Your task to perform on an android device: open app "DuckDuckGo Privacy Browser" (install if not already installed) Image 0: 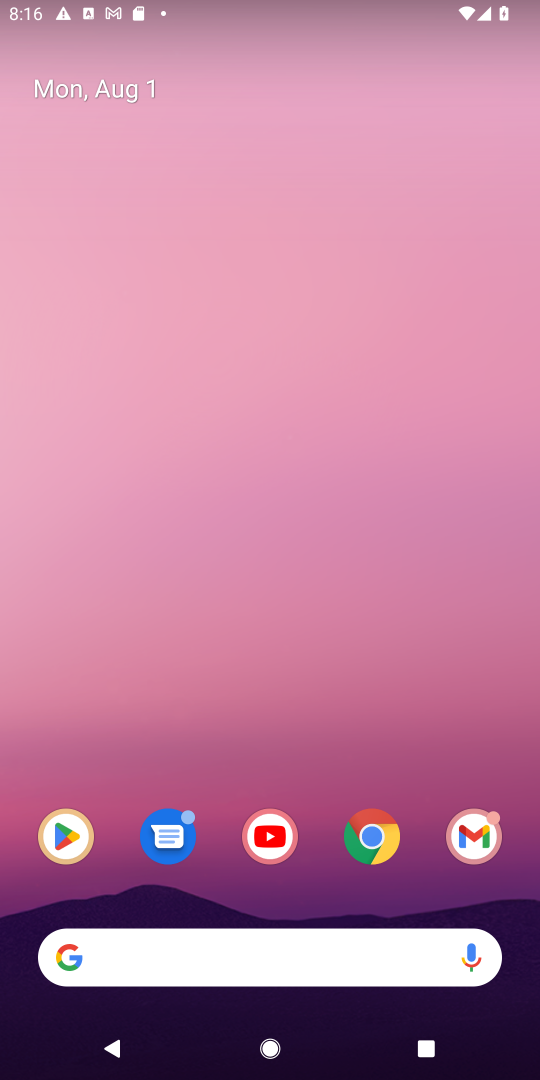
Step 0: click (65, 834)
Your task to perform on an android device: open app "DuckDuckGo Privacy Browser" (install if not already installed) Image 1: 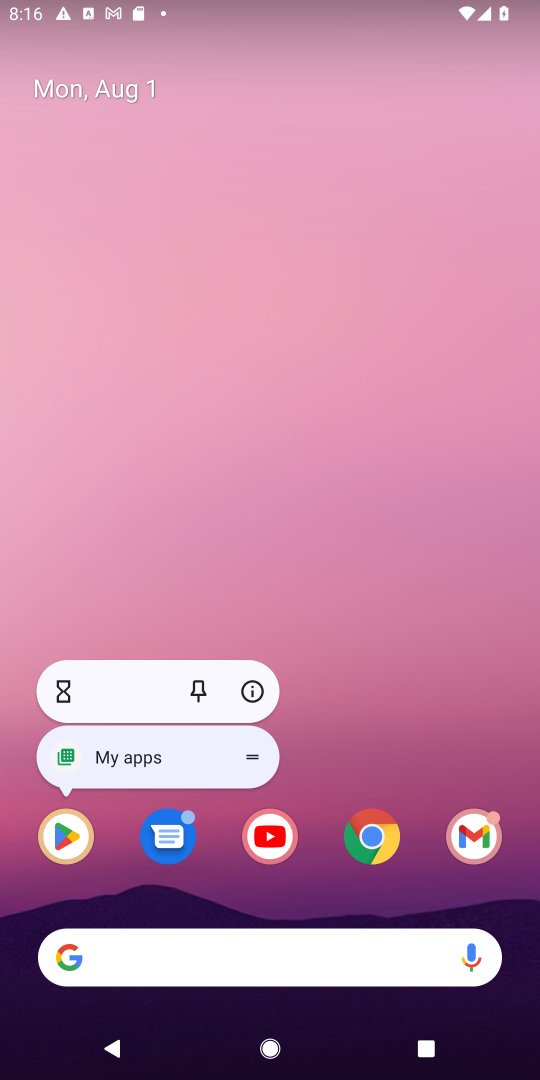
Step 1: click (65, 836)
Your task to perform on an android device: open app "DuckDuckGo Privacy Browser" (install if not already installed) Image 2: 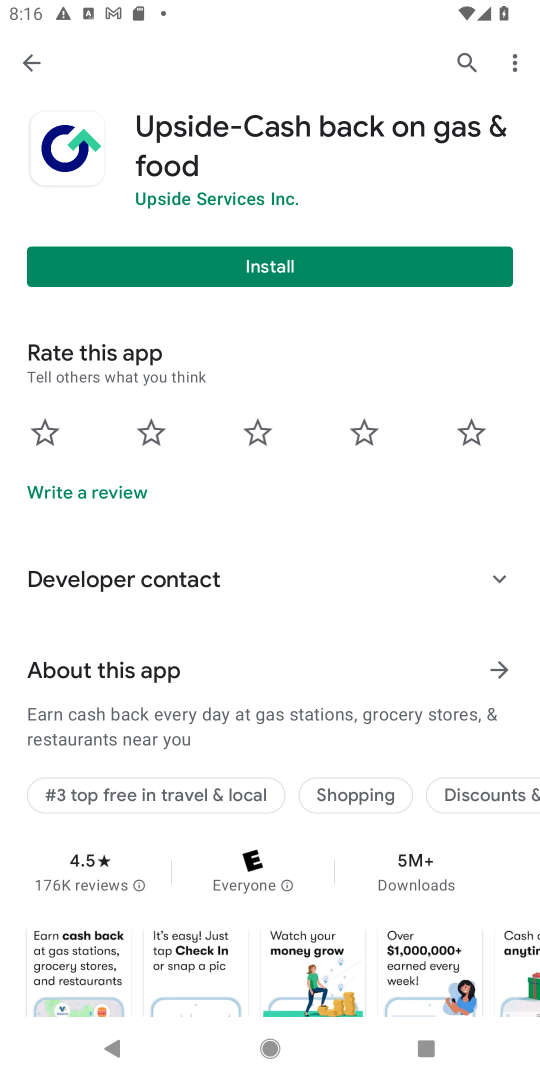
Step 2: click (461, 57)
Your task to perform on an android device: open app "DuckDuckGo Privacy Browser" (install if not already installed) Image 3: 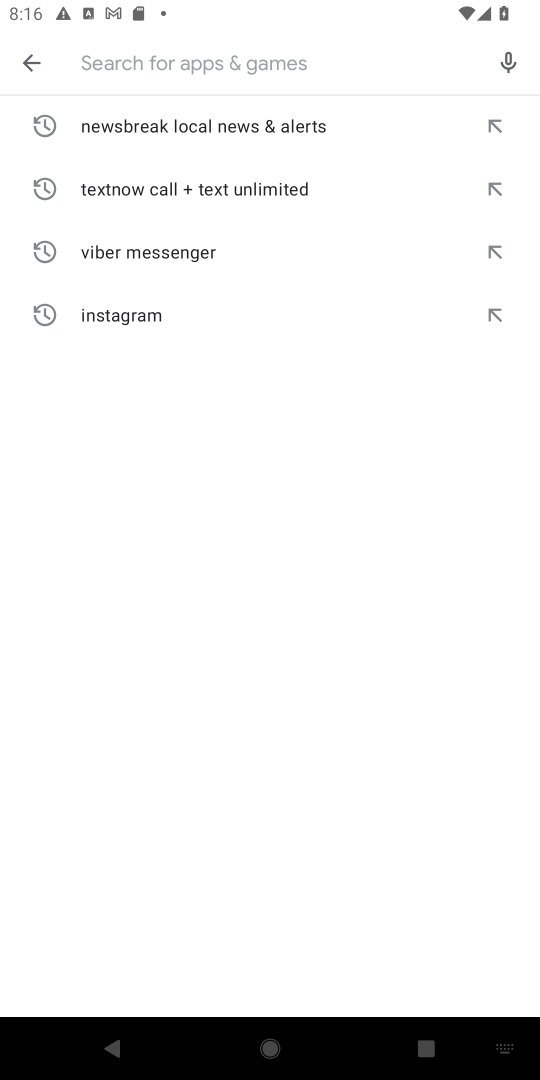
Step 3: type "DuckDuckGo Privacy Browser"
Your task to perform on an android device: open app "DuckDuckGo Privacy Browser" (install if not already installed) Image 4: 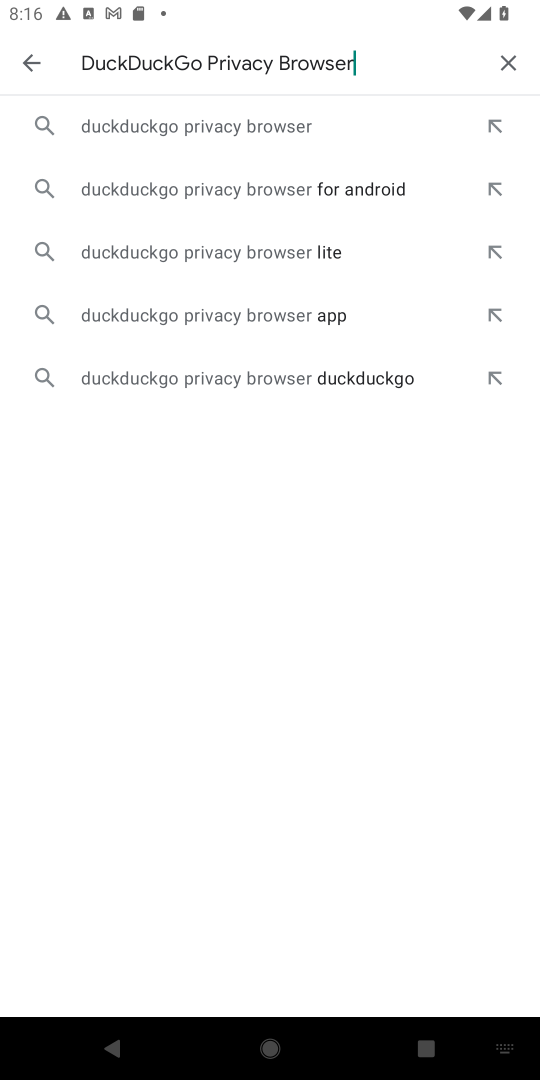
Step 4: click (201, 119)
Your task to perform on an android device: open app "DuckDuckGo Privacy Browser" (install if not already installed) Image 5: 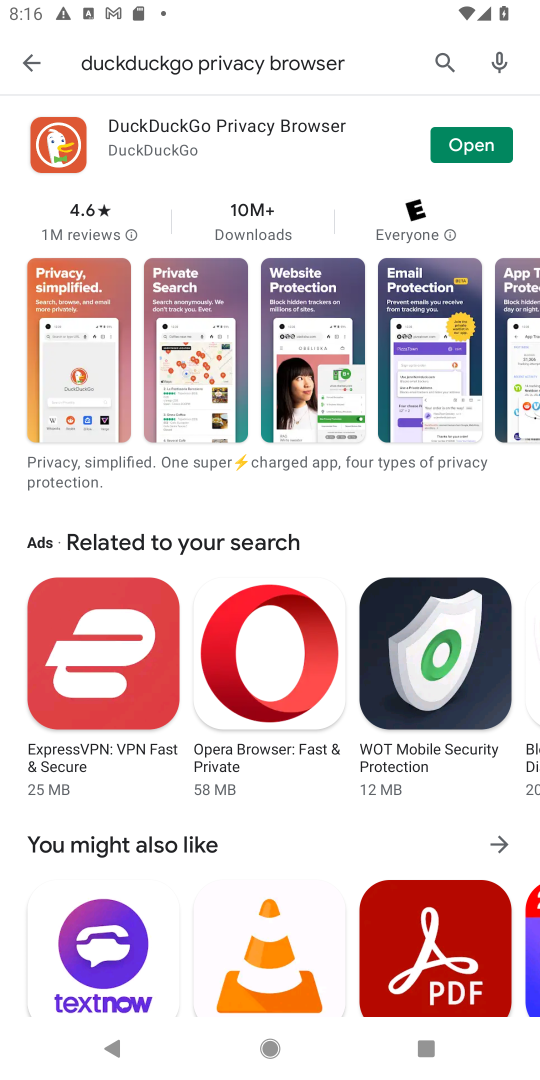
Step 5: click (490, 140)
Your task to perform on an android device: open app "DuckDuckGo Privacy Browser" (install if not already installed) Image 6: 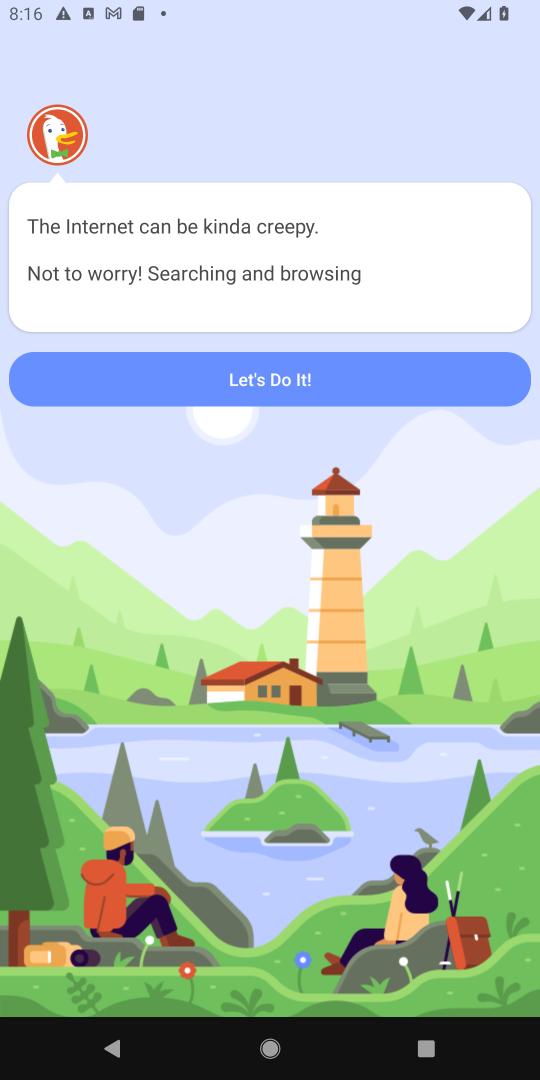
Step 6: task complete